Your task to perform on an android device: Open Google Maps and go to "Timeline" Image 0: 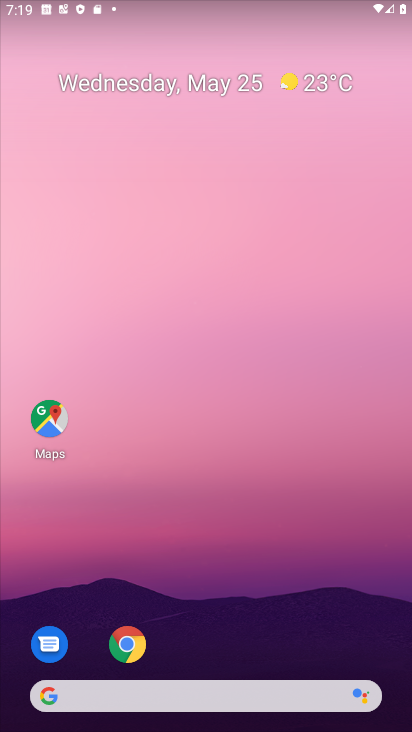
Step 0: press home button
Your task to perform on an android device: Open Google Maps and go to "Timeline" Image 1: 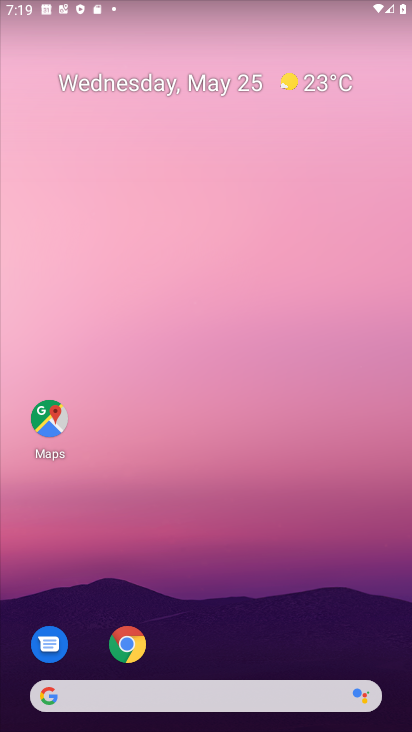
Step 1: drag from (243, 703) to (240, 204)
Your task to perform on an android device: Open Google Maps and go to "Timeline" Image 2: 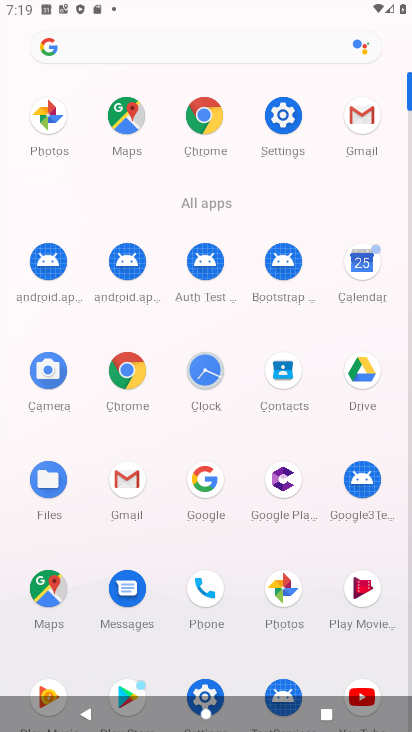
Step 2: click (127, 118)
Your task to perform on an android device: Open Google Maps and go to "Timeline" Image 3: 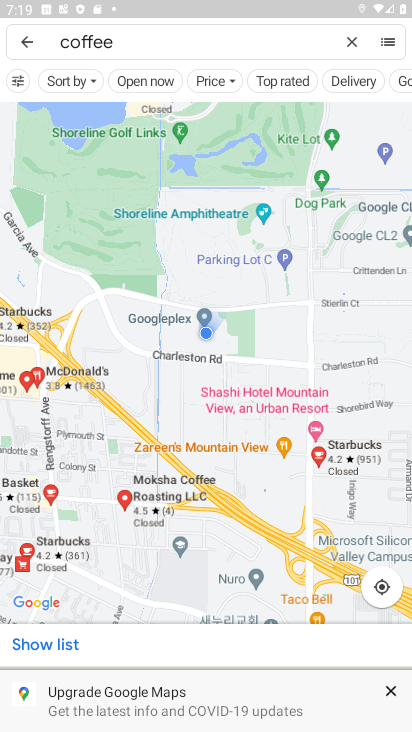
Step 3: click (20, 38)
Your task to perform on an android device: Open Google Maps and go to "Timeline" Image 4: 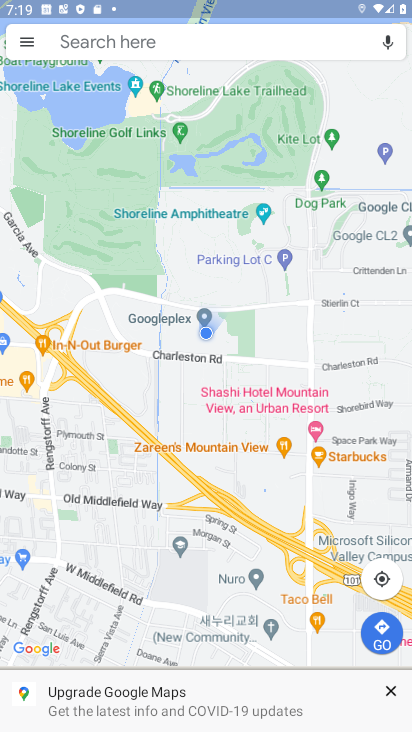
Step 4: click (15, 45)
Your task to perform on an android device: Open Google Maps and go to "Timeline" Image 5: 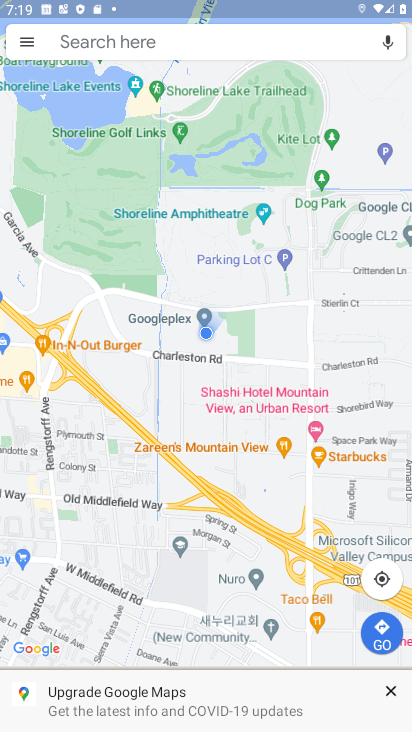
Step 5: click (33, 42)
Your task to perform on an android device: Open Google Maps and go to "Timeline" Image 6: 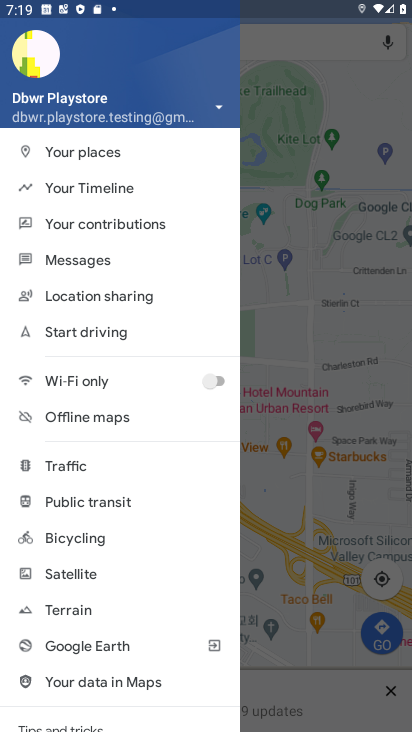
Step 6: click (111, 189)
Your task to perform on an android device: Open Google Maps and go to "Timeline" Image 7: 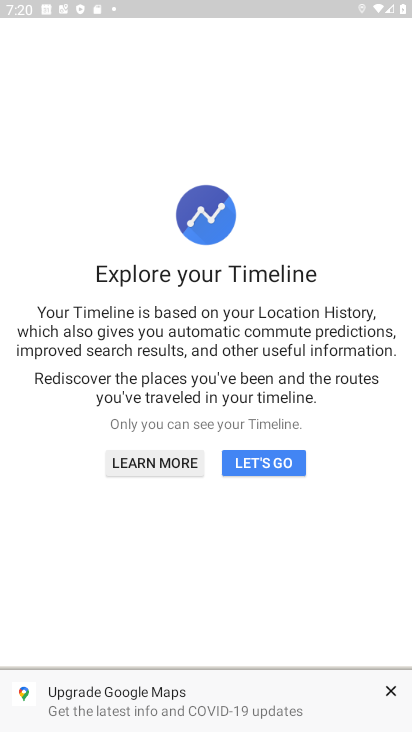
Step 7: click (265, 468)
Your task to perform on an android device: Open Google Maps and go to "Timeline" Image 8: 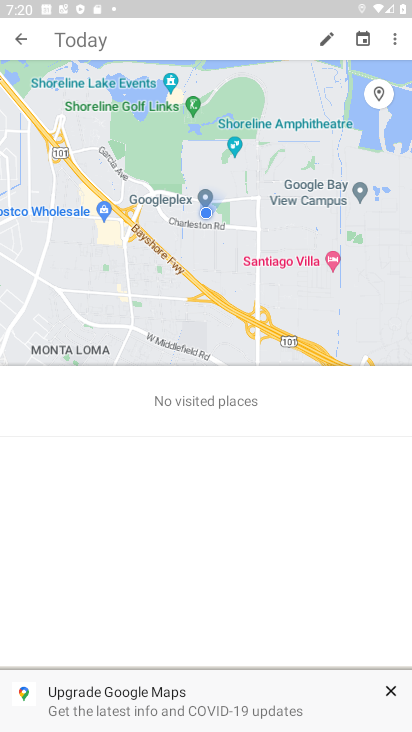
Step 8: click (391, 688)
Your task to perform on an android device: Open Google Maps and go to "Timeline" Image 9: 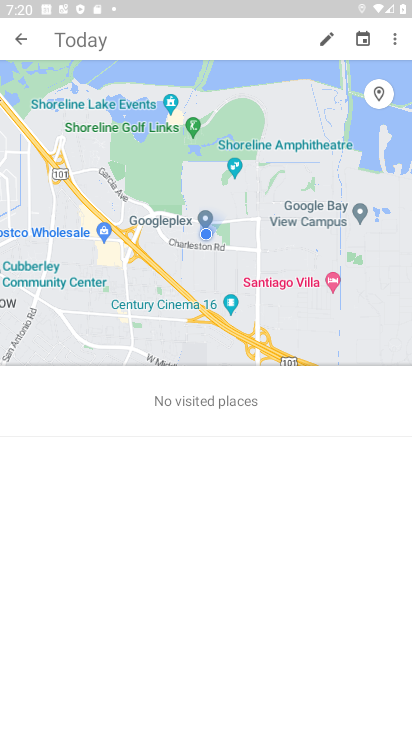
Step 9: task complete